Your task to perform on an android device: Open Chrome and go to settings Image 0: 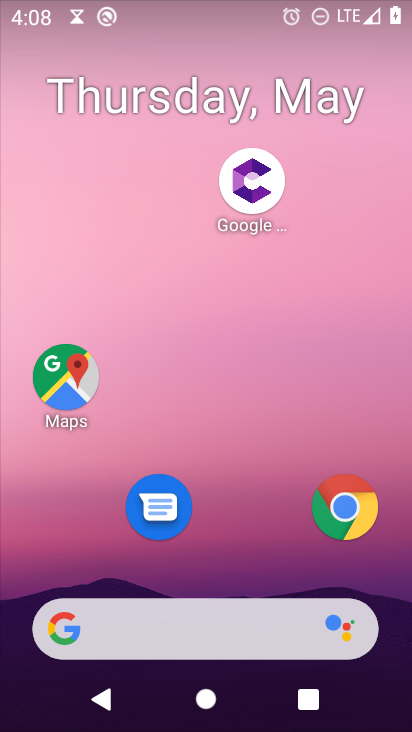
Step 0: press home button
Your task to perform on an android device: Open Chrome and go to settings Image 1: 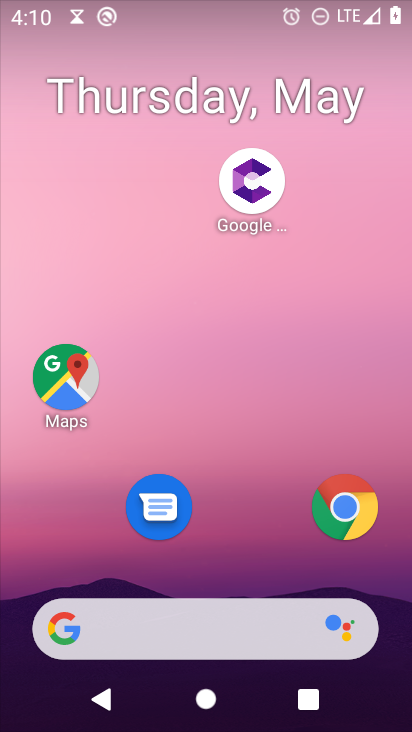
Step 1: click (342, 521)
Your task to perform on an android device: Open Chrome and go to settings Image 2: 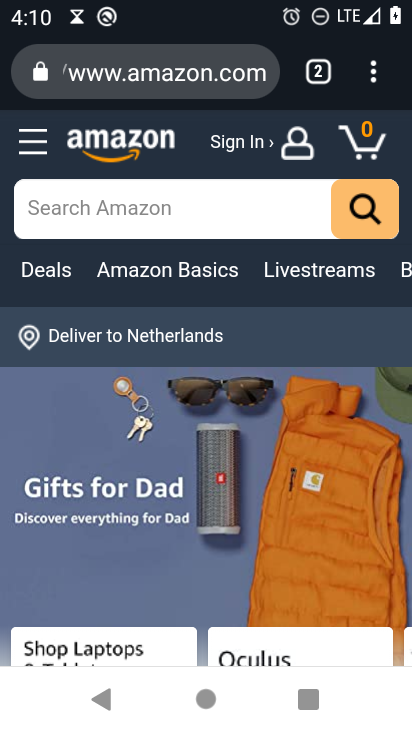
Step 2: task complete